Your task to perform on an android device: open a bookmark in the chrome app Image 0: 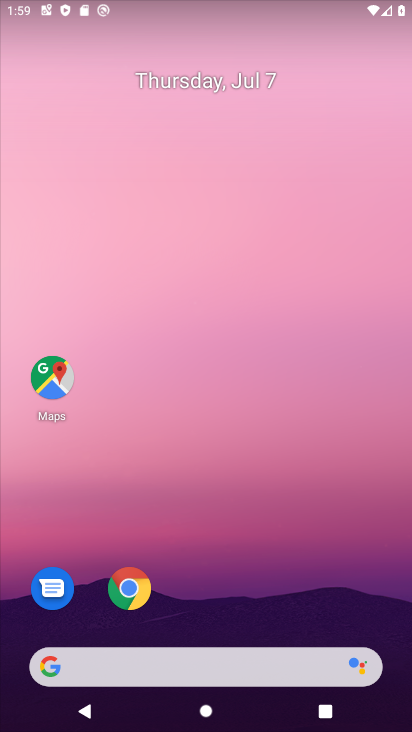
Step 0: click (121, 570)
Your task to perform on an android device: open a bookmark in the chrome app Image 1: 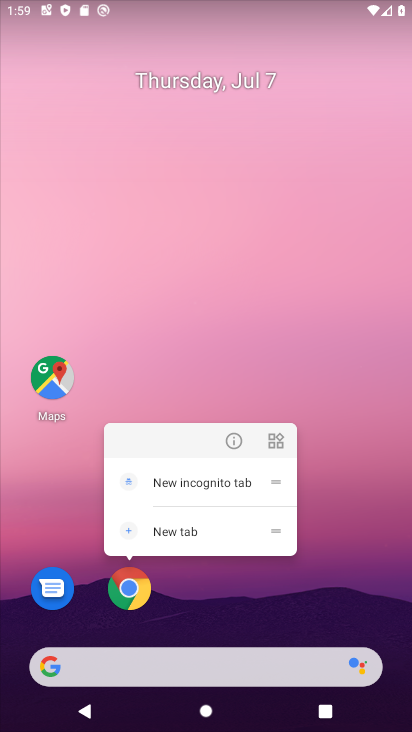
Step 1: click (123, 589)
Your task to perform on an android device: open a bookmark in the chrome app Image 2: 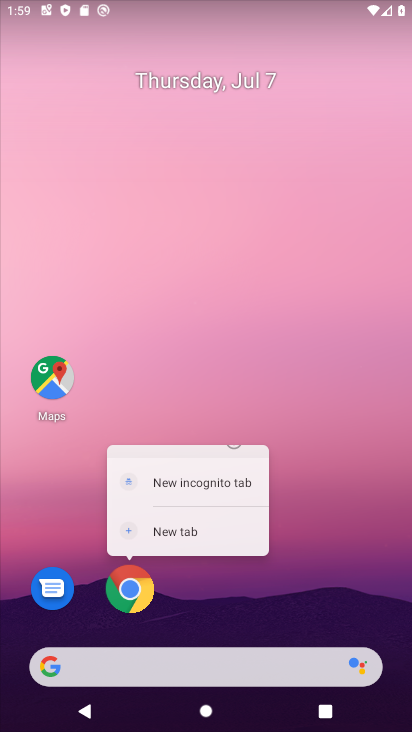
Step 2: click (118, 596)
Your task to perform on an android device: open a bookmark in the chrome app Image 3: 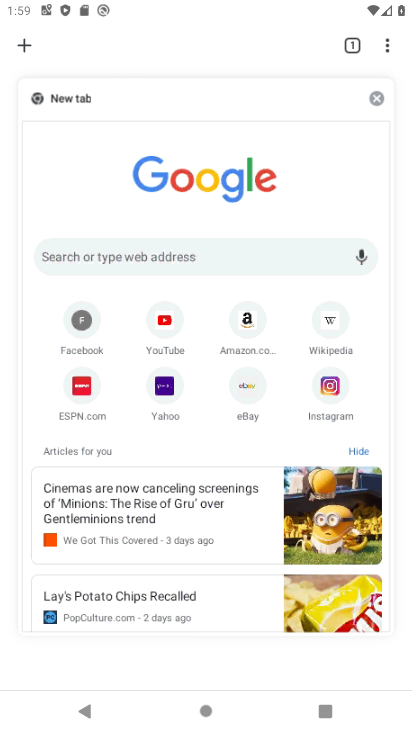
Step 3: click (380, 46)
Your task to perform on an android device: open a bookmark in the chrome app Image 4: 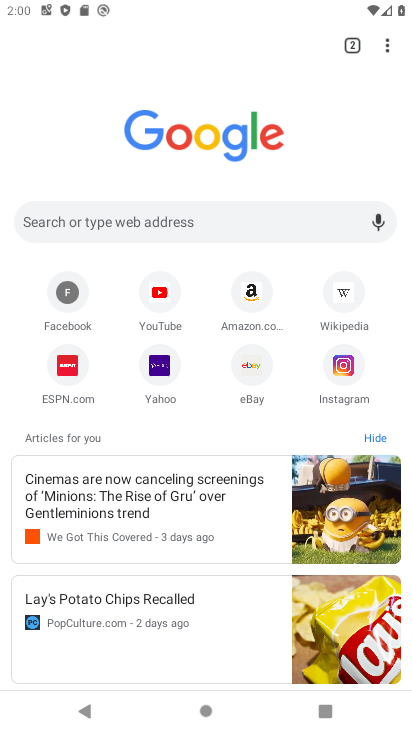
Step 4: click (388, 55)
Your task to perform on an android device: open a bookmark in the chrome app Image 5: 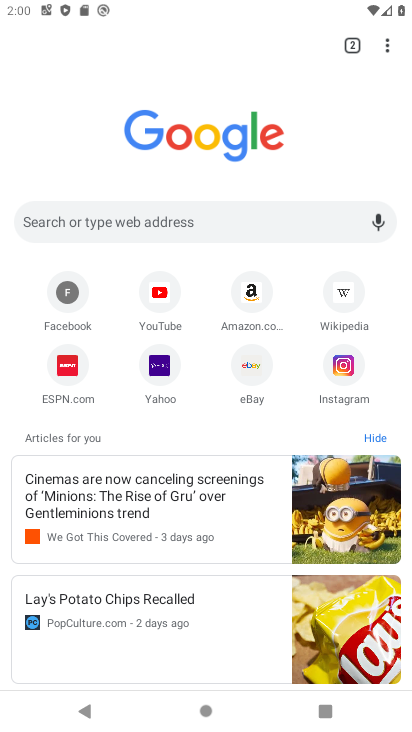
Step 5: click (389, 37)
Your task to perform on an android device: open a bookmark in the chrome app Image 6: 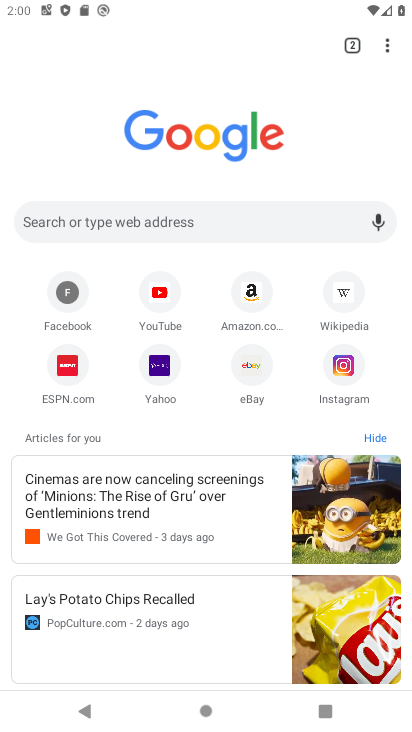
Step 6: click (383, 44)
Your task to perform on an android device: open a bookmark in the chrome app Image 7: 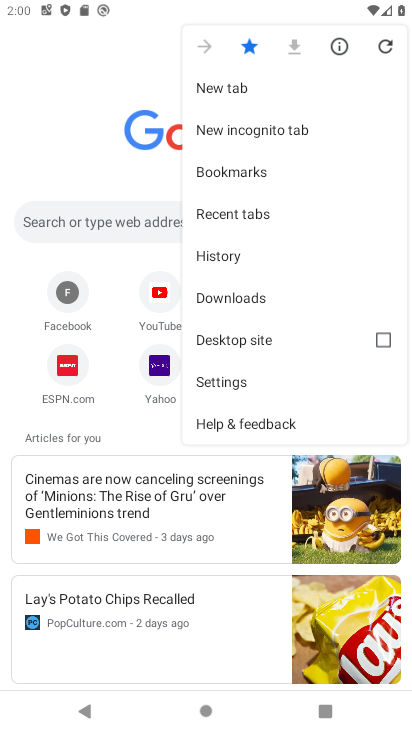
Step 7: click (227, 166)
Your task to perform on an android device: open a bookmark in the chrome app Image 8: 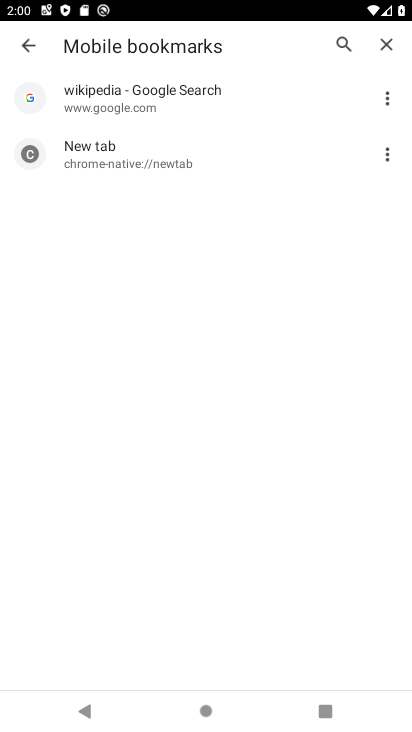
Step 8: task complete